Your task to perform on an android device: Open eBay Image 0: 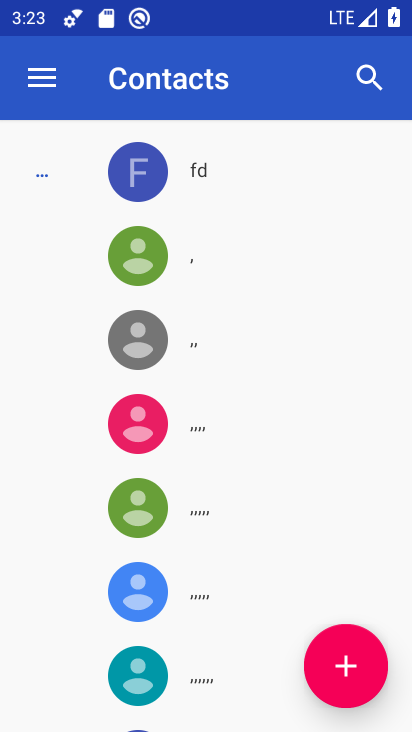
Step 0: press home button
Your task to perform on an android device: Open eBay Image 1: 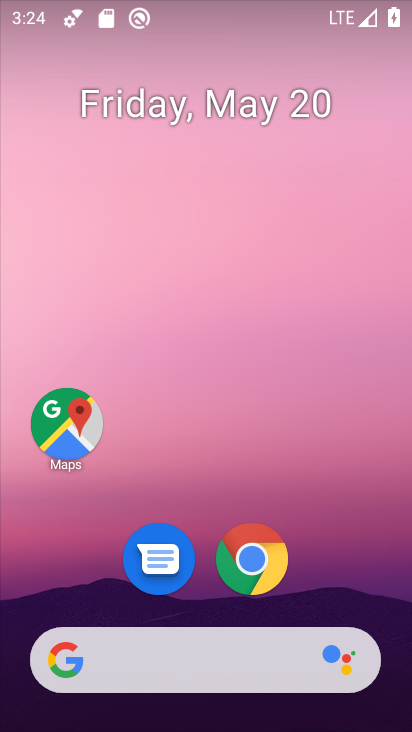
Step 1: click (269, 663)
Your task to perform on an android device: Open eBay Image 2: 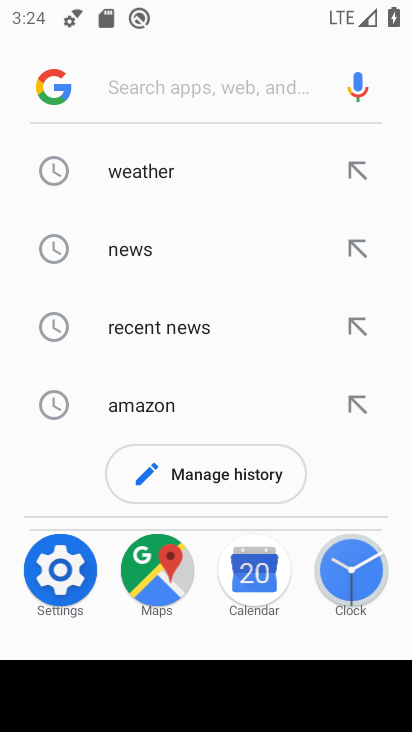
Step 2: type "ebay"
Your task to perform on an android device: Open eBay Image 3: 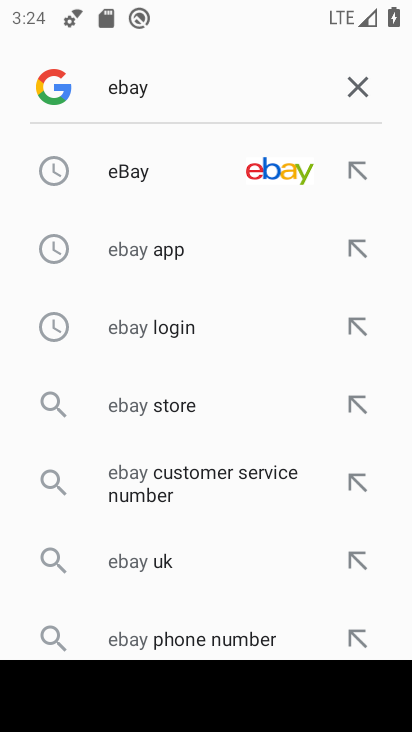
Step 3: click (139, 175)
Your task to perform on an android device: Open eBay Image 4: 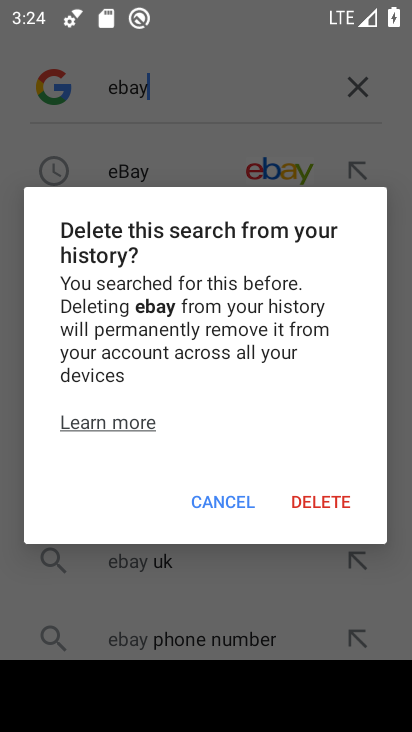
Step 4: click (229, 501)
Your task to perform on an android device: Open eBay Image 5: 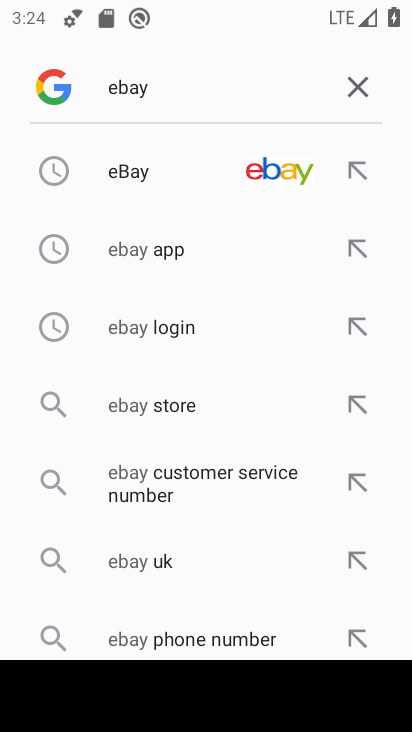
Step 5: click (140, 171)
Your task to perform on an android device: Open eBay Image 6: 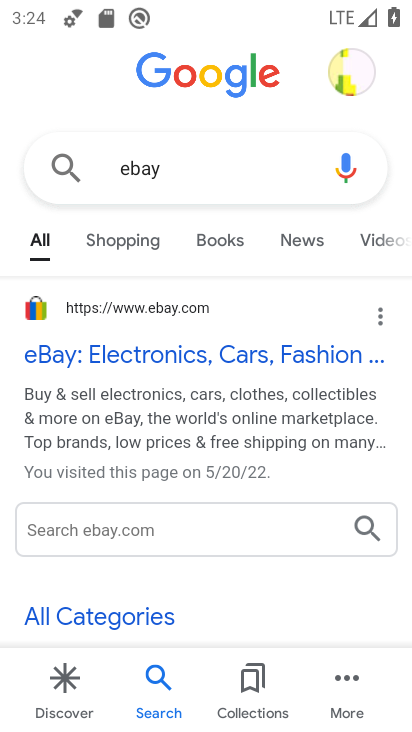
Step 6: click (59, 350)
Your task to perform on an android device: Open eBay Image 7: 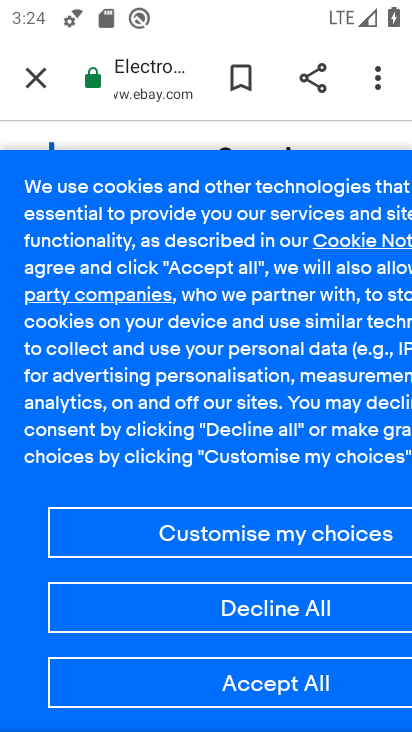
Step 7: task complete